Your task to perform on an android device: open chrome and create a bookmark for the current page Image 0: 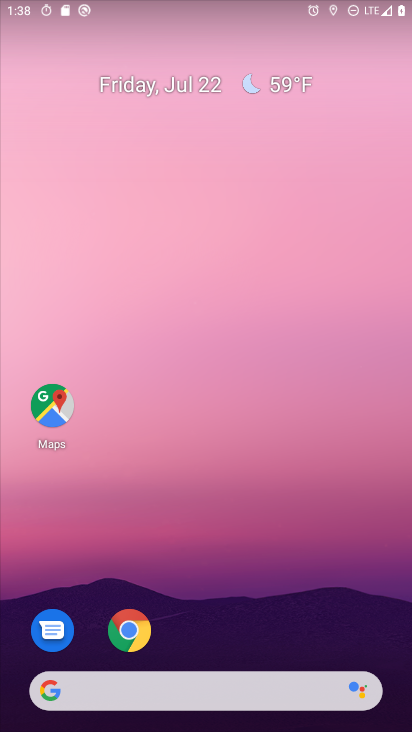
Step 0: press home button
Your task to perform on an android device: open chrome and create a bookmark for the current page Image 1: 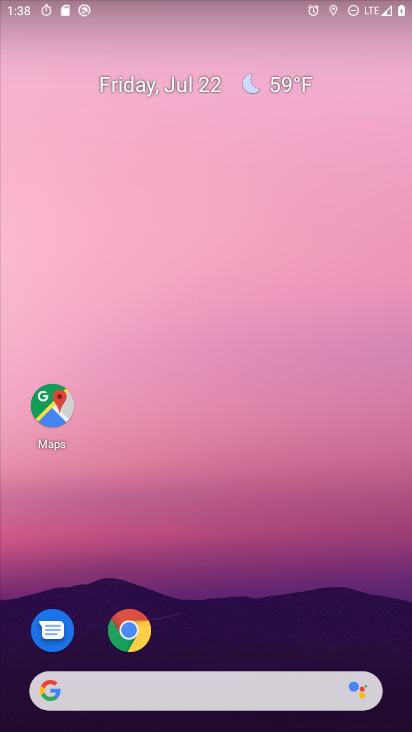
Step 1: drag from (253, 642) to (215, 199)
Your task to perform on an android device: open chrome and create a bookmark for the current page Image 2: 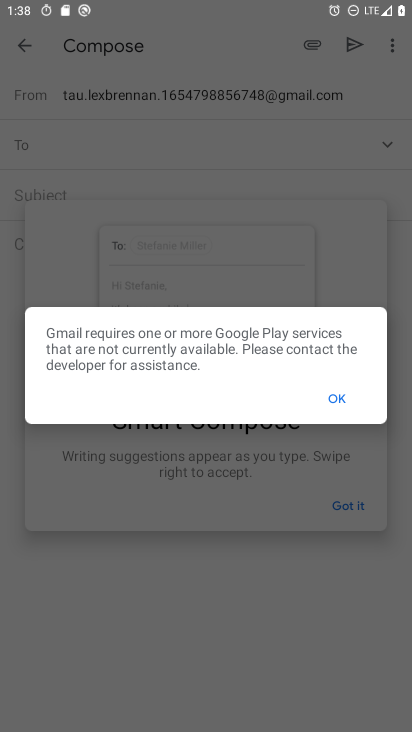
Step 2: press home button
Your task to perform on an android device: open chrome and create a bookmark for the current page Image 3: 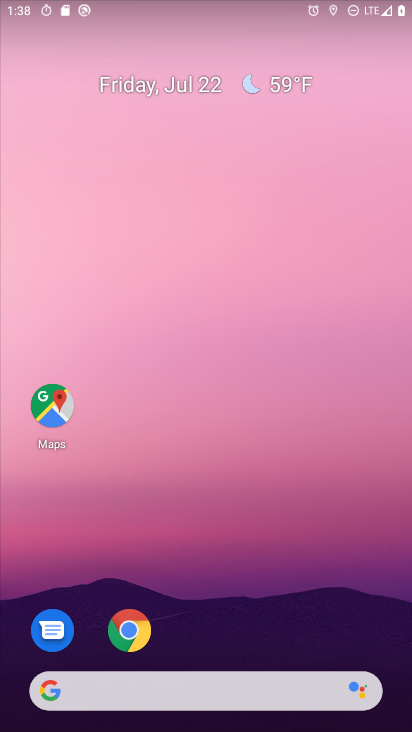
Step 3: drag from (254, 396) to (232, 4)
Your task to perform on an android device: open chrome and create a bookmark for the current page Image 4: 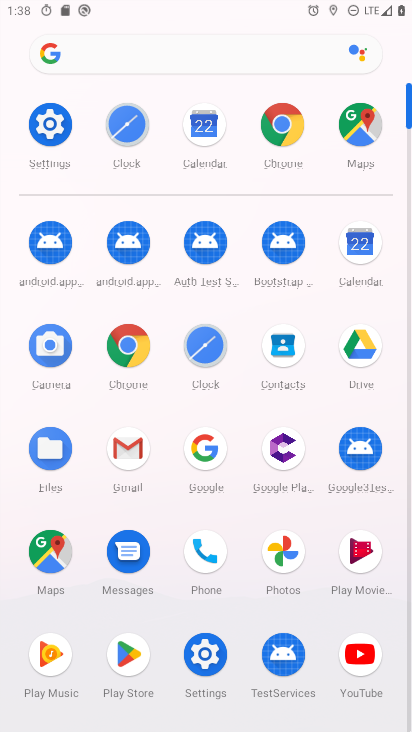
Step 4: click (274, 112)
Your task to perform on an android device: open chrome and create a bookmark for the current page Image 5: 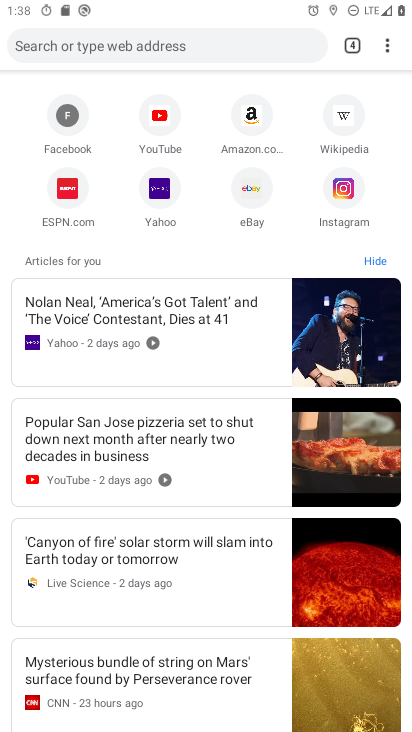
Step 5: click (387, 42)
Your task to perform on an android device: open chrome and create a bookmark for the current page Image 6: 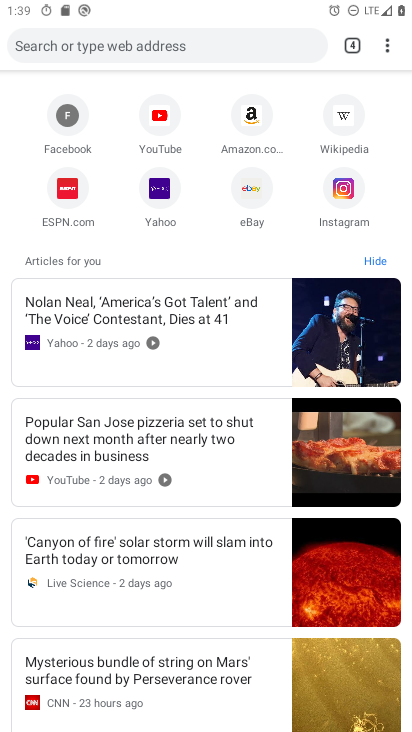
Step 6: task complete